Your task to perform on an android device: turn on the 24-hour format for clock Image 0: 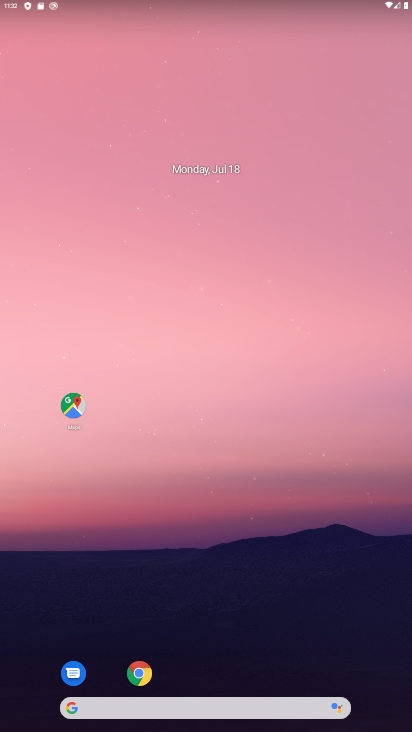
Step 0: drag from (172, 636) to (180, 220)
Your task to perform on an android device: turn on the 24-hour format for clock Image 1: 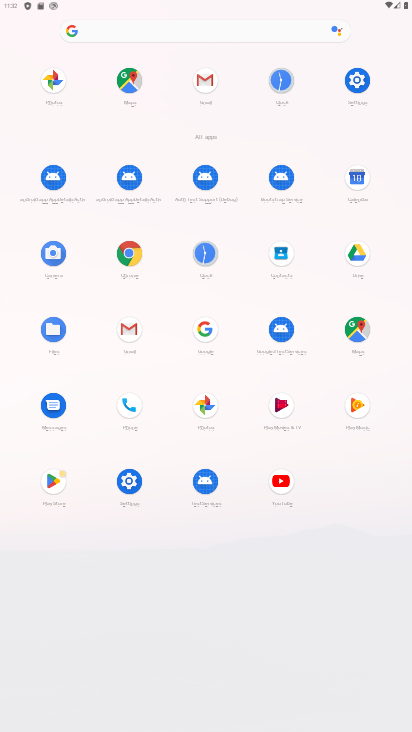
Step 1: click (198, 252)
Your task to perform on an android device: turn on the 24-hour format for clock Image 2: 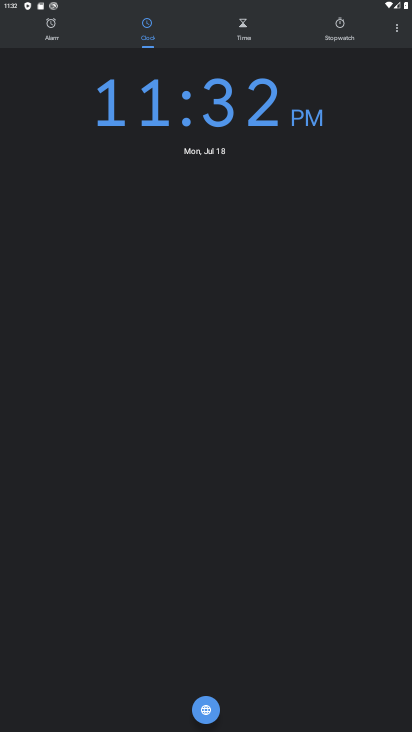
Step 2: click (397, 28)
Your task to perform on an android device: turn on the 24-hour format for clock Image 3: 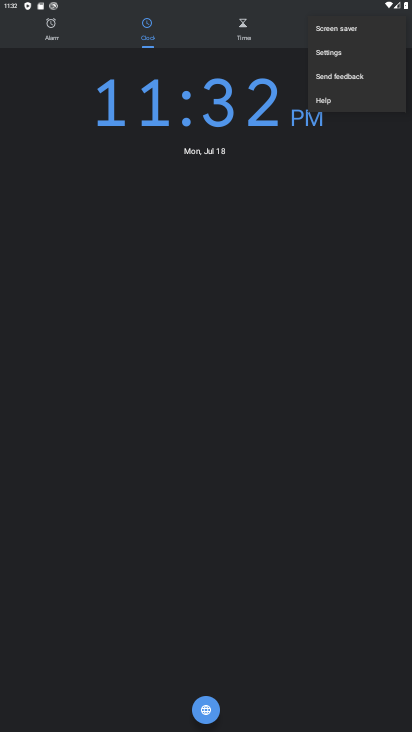
Step 3: click (343, 49)
Your task to perform on an android device: turn on the 24-hour format for clock Image 4: 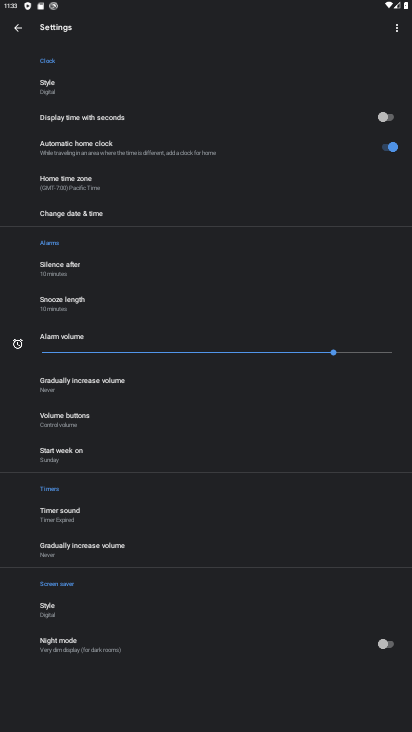
Step 4: click (97, 211)
Your task to perform on an android device: turn on the 24-hour format for clock Image 5: 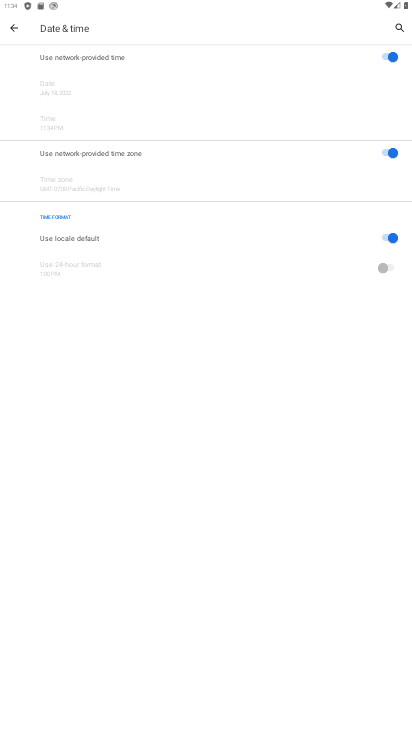
Step 5: click (389, 243)
Your task to perform on an android device: turn on the 24-hour format for clock Image 6: 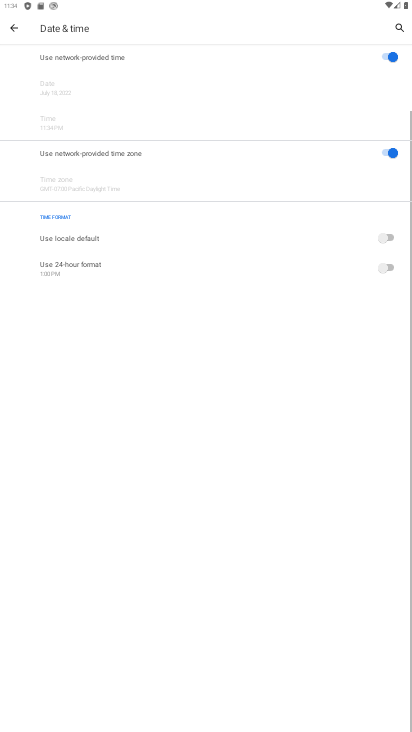
Step 6: click (384, 261)
Your task to perform on an android device: turn on the 24-hour format for clock Image 7: 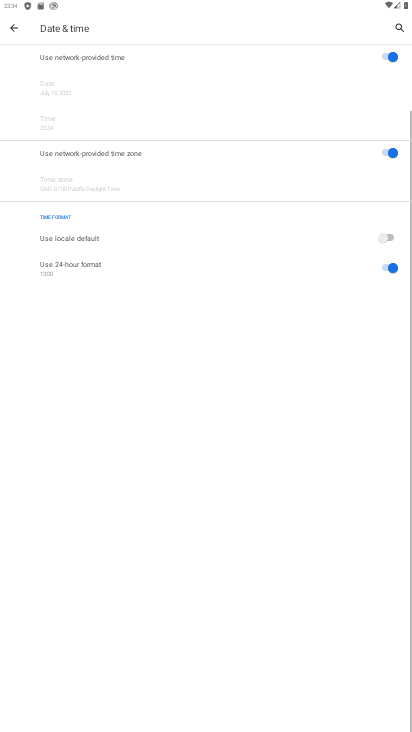
Step 7: task complete